Your task to perform on an android device: Open settings on Google Maps Image 0: 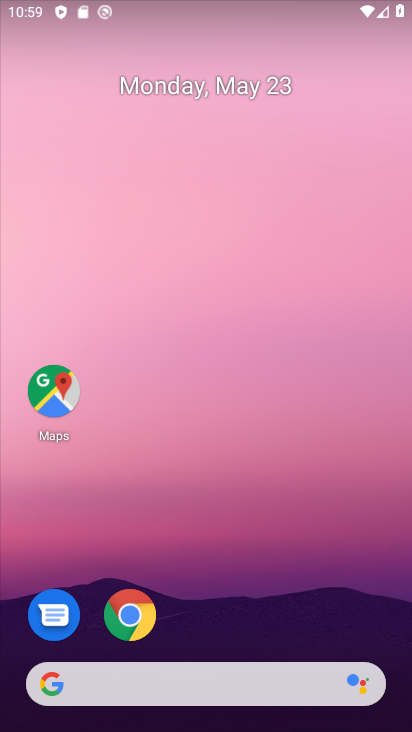
Step 0: click (57, 395)
Your task to perform on an android device: Open settings on Google Maps Image 1: 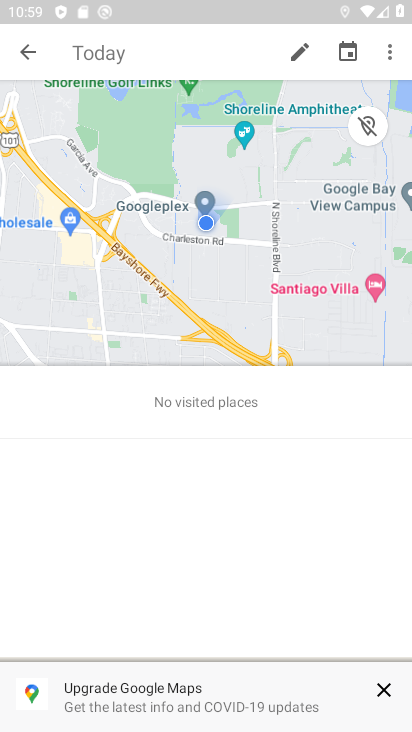
Step 1: click (33, 68)
Your task to perform on an android device: Open settings on Google Maps Image 2: 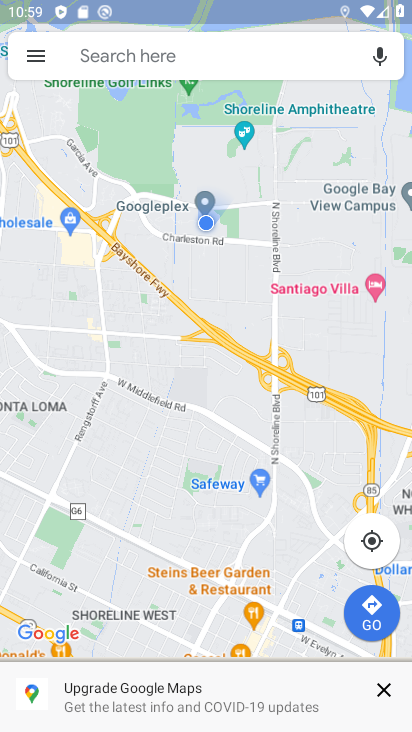
Step 2: click (33, 68)
Your task to perform on an android device: Open settings on Google Maps Image 3: 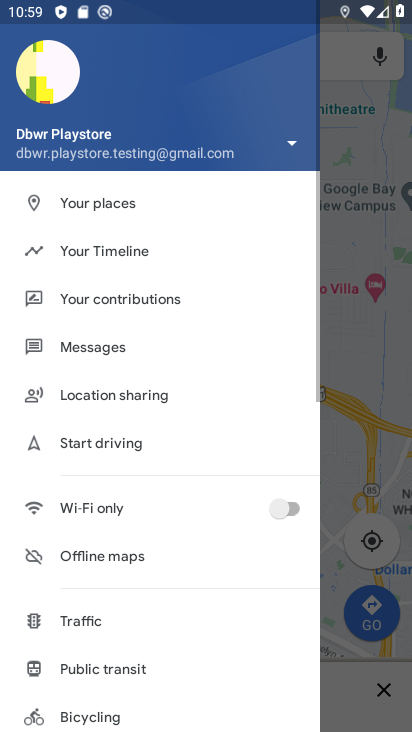
Step 3: drag from (57, 643) to (107, 153)
Your task to perform on an android device: Open settings on Google Maps Image 4: 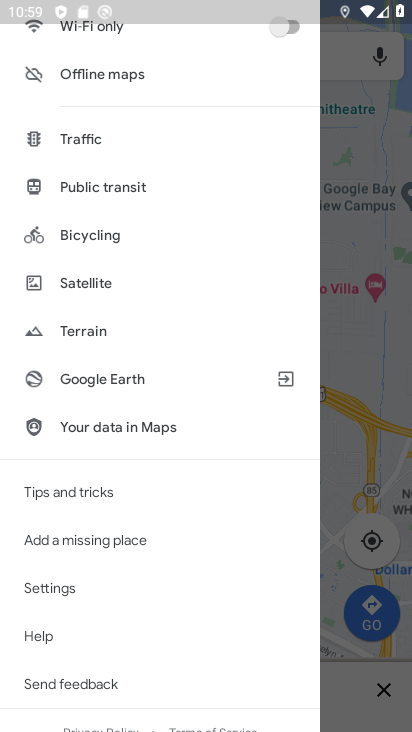
Step 4: click (43, 567)
Your task to perform on an android device: Open settings on Google Maps Image 5: 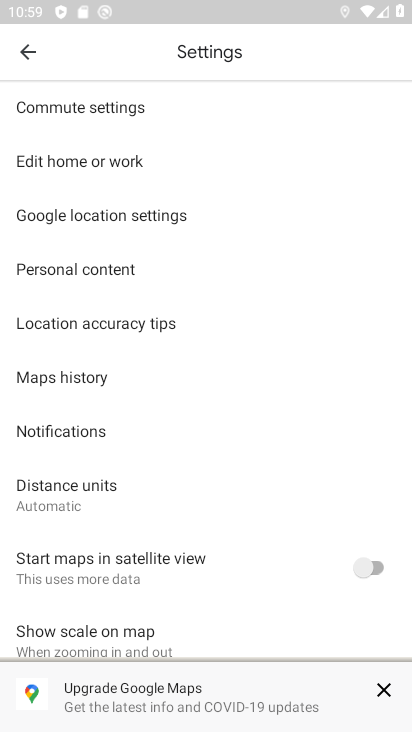
Step 5: task complete